Your task to perform on an android device: change notifications settings Image 0: 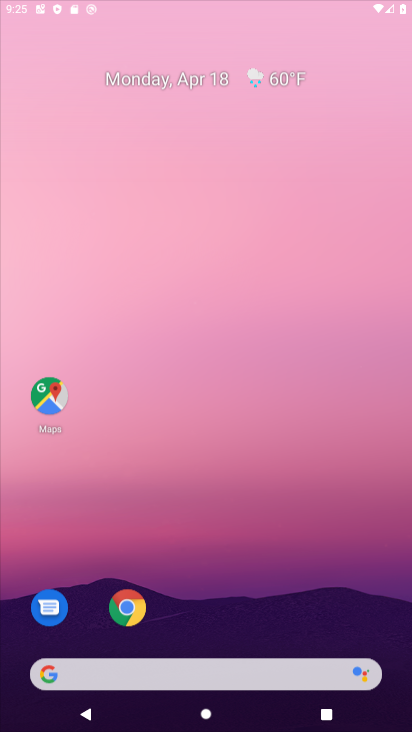
Step 0: click (272, 208)
Your task to perform on an android device: change notifications settings Image 1: 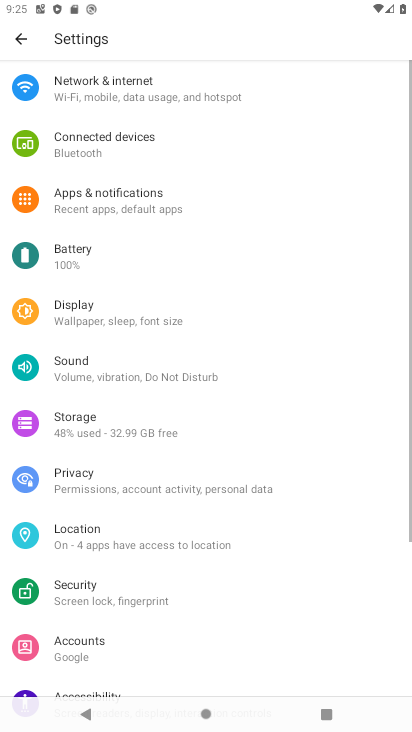
Step 1: drag from (190, 655) to (272, 241)
Your task to perform on an android device: change notifications settings Image 2: 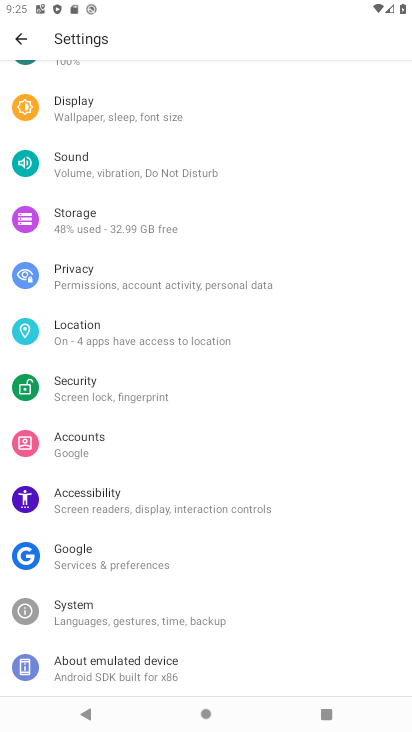
Step 2: drag from (177, 202) to (180, 585)
Your task to perform on an android device: change notifications settings Image 3: 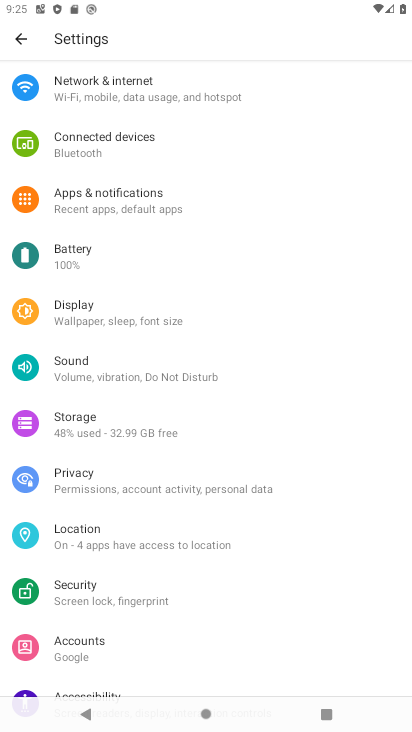
Step 3: click (83, 195)
Your task to perform on an android device: change notifications settings Image 4: 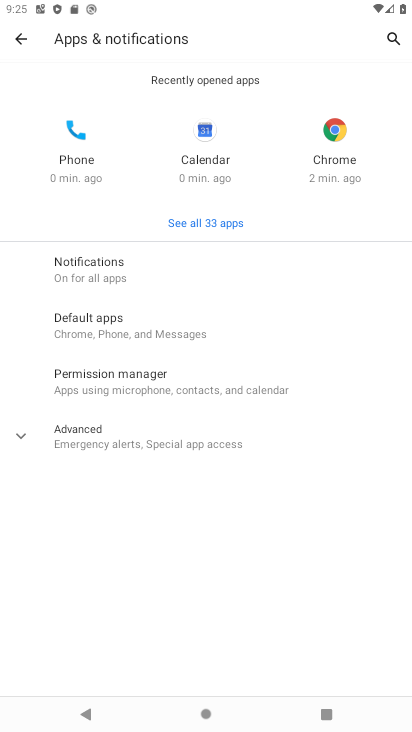
Step 4: click (159, 276)
Your task to perform on an android device: change notifications settings Image 5: 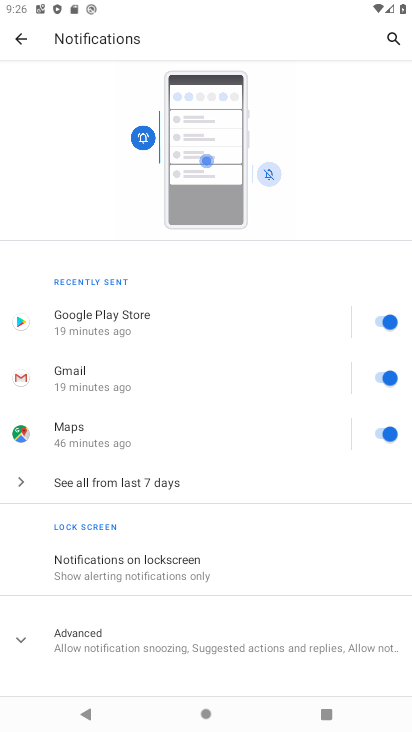
Step 5: click (373, 371)
Your task to perform on an android device: change notifications settings Image 6: 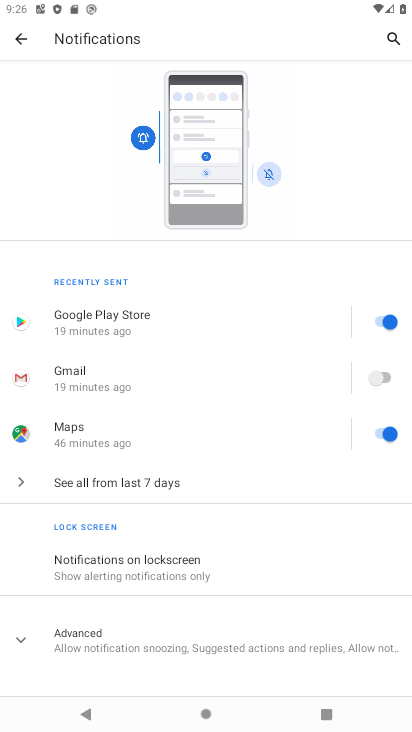
Step 6: task complete